Your task to perform on an android device: change the clock display to show seconds Image 0: 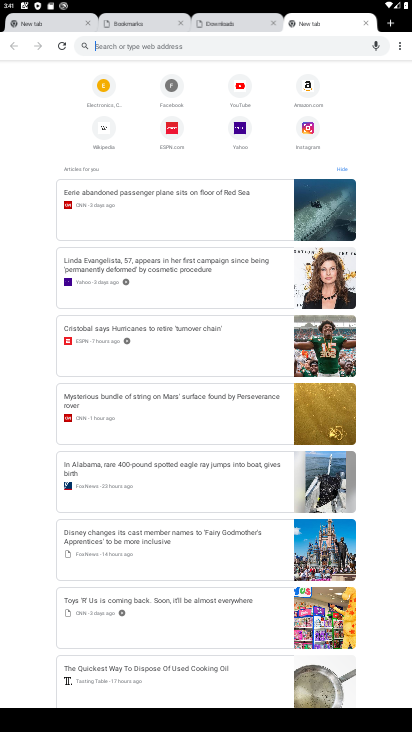
Step 0: press home button
Your task to perform on an android device: change the clock display to show seconds Image 1: 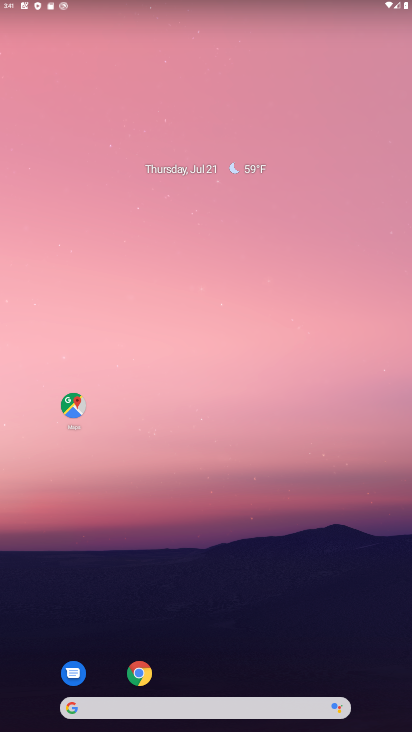
Step 1: drag from (320, 653) to (282, 115)
Your task to perform on an android device: change the clock display to show seconds Image 2: 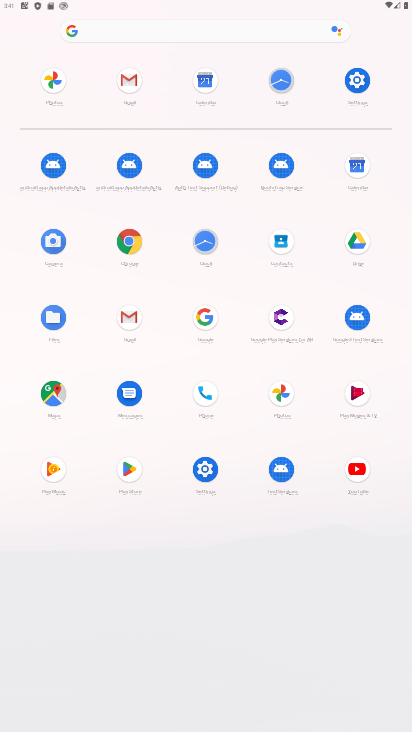
Step 2: click (202, 244)
Your task to perform on an android device: change the clock display to show seconds Image 3: 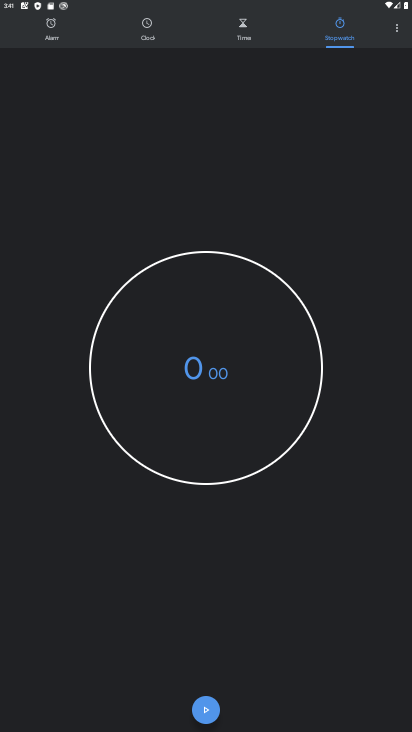
Step 3: click (395, 36)
Your task to perform on an android device: change the clock display to show seconds Image 4: 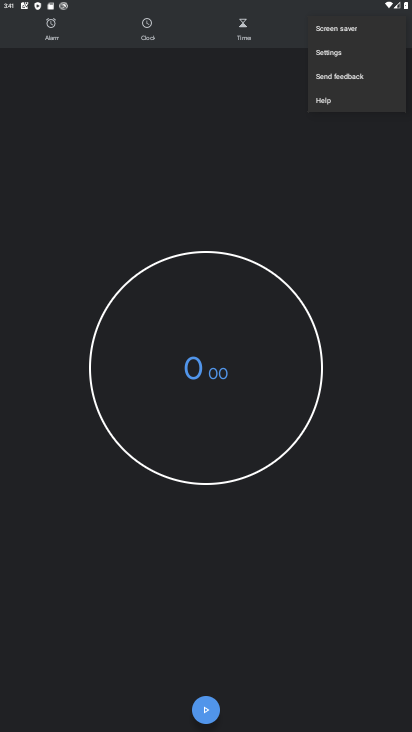
Step 4: click (324, 50)
Your task to perform on an android device: change the clock display to show seconds Image 5: 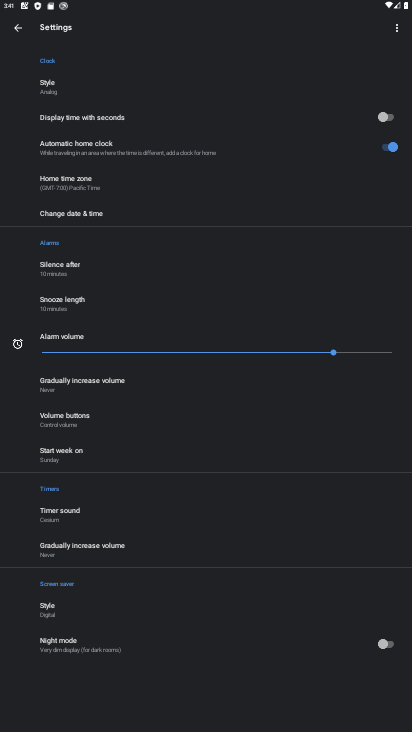
Step 5: click (391, 113)
Your task to perform on an android device: change the clock display to show seconds Image 6: 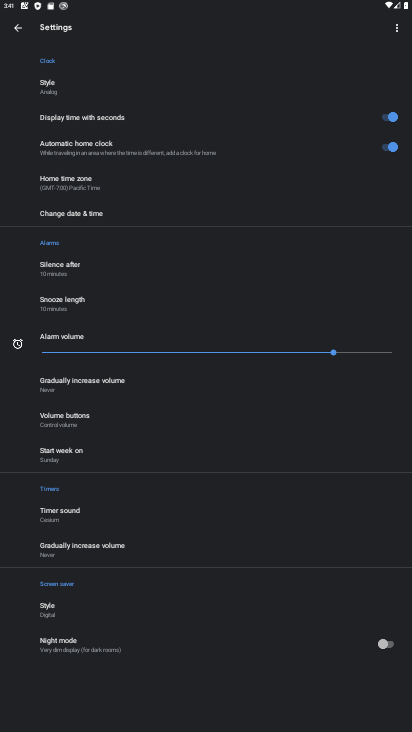
Step 6: task complete